Your task to perform on an android device: toggle pop-ups in chrome Image 0: 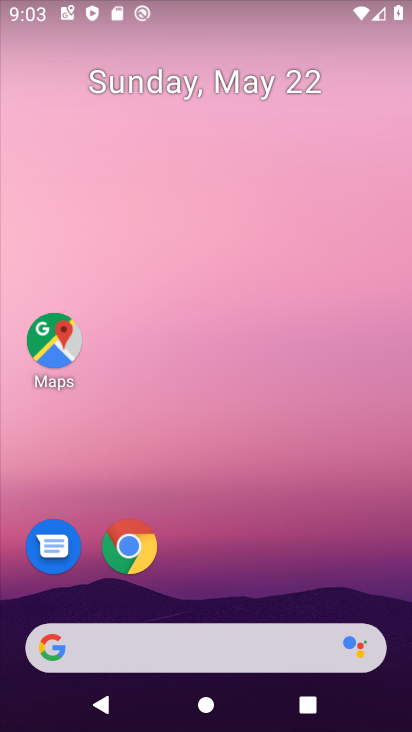
Step 0: click (126, 549)
Your task to perform on an android device: toggle pop-ups in chrome Image 1: 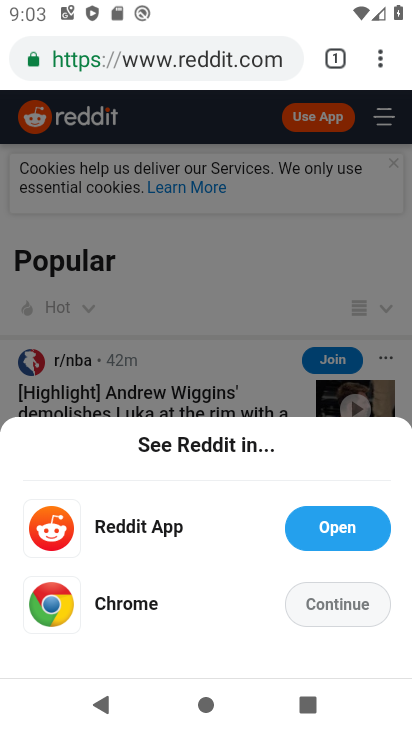
Step 1: drag from (373, 55) to (199, 573)
Your task to perform on an android device: toggle pop-ups in chrome Image 2: 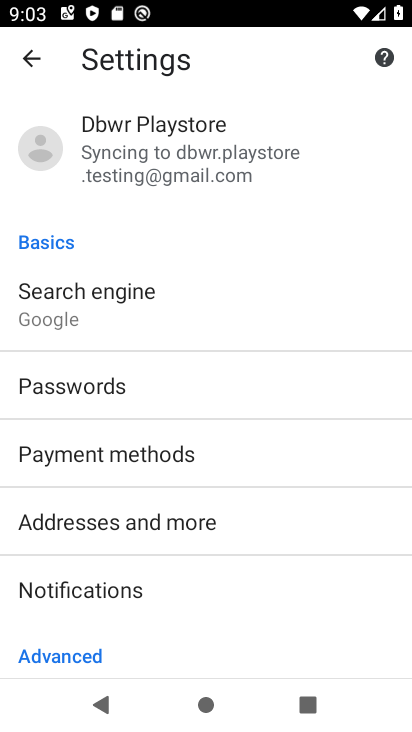
Step 2: drag from (168, 522) to (252, 84)
Your task to perform on an android device: toggle pop-ups in chrome Image 3: 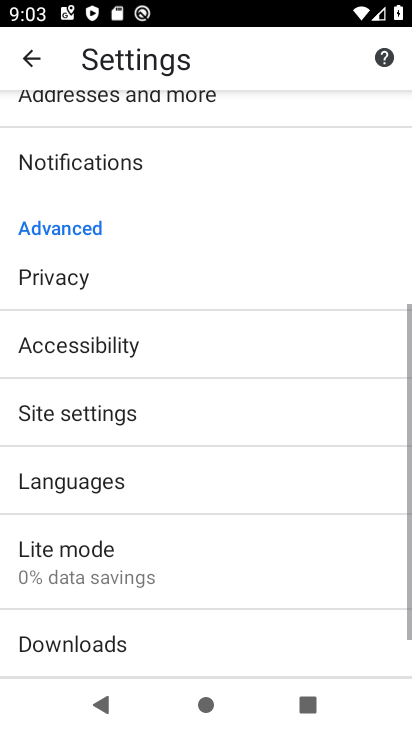
Step 3: click (85, 425)
Your task to perform on an android device: toggle pop-ups in chrome Image 4: 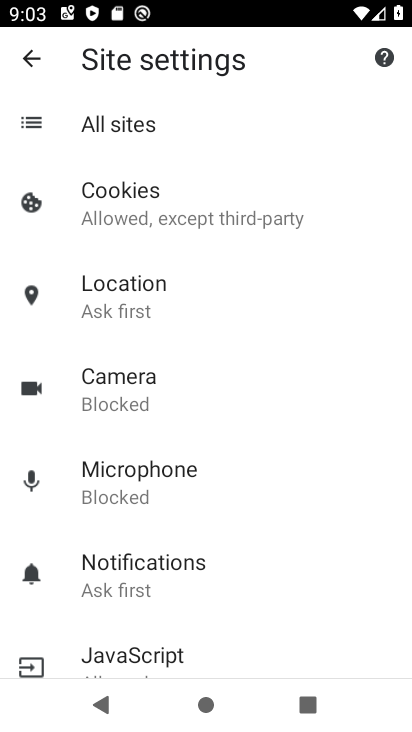
Step 4: drag from (186, 663) to (242, 241)
Your task to perform on an android device: toggle pop-ups in chrome Image 5: 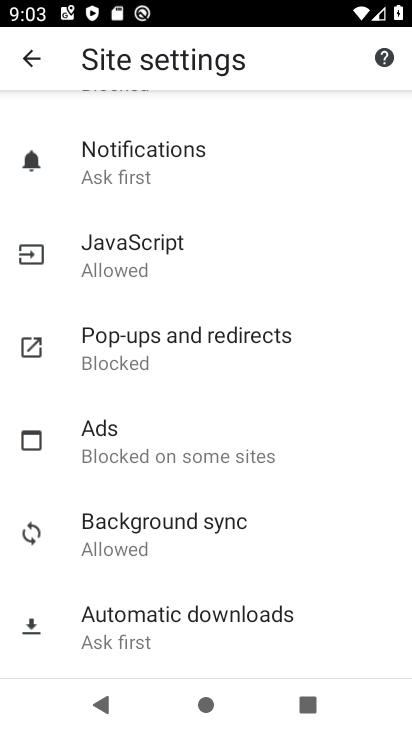
Step 5: click (108, 349)
Your task to perform on an android device: toggle pop-ups in chrome Image 6: 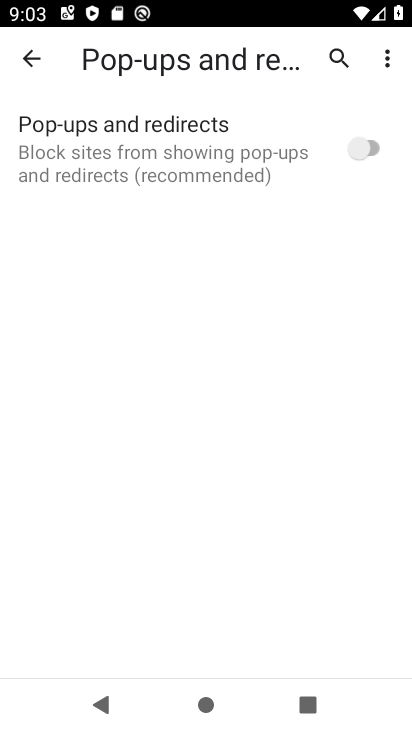
Step 6: click (358, 151)
Your task to perform on an android device: toggle pop-ups in chrome Image 7: 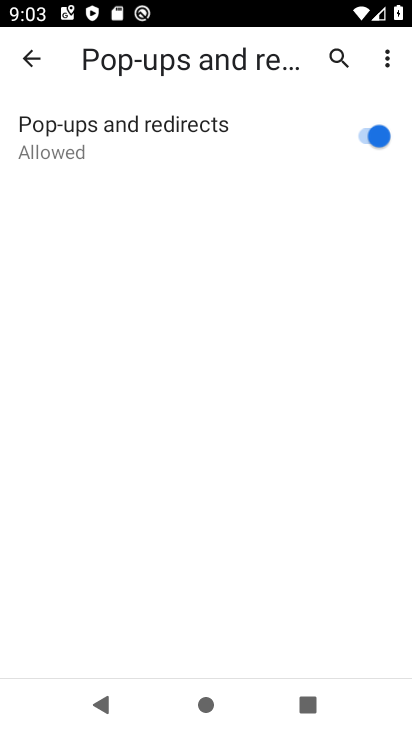
Step 7: task complete